Your task to perform on an android device: Go to network settings Image 0: 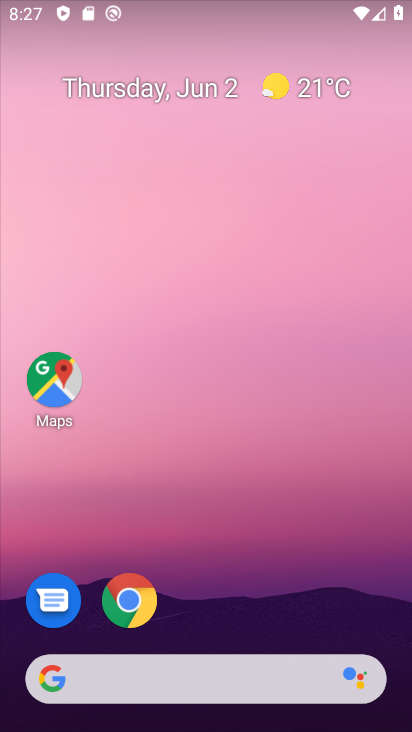
Step 0: drag from (234, 625) to (253, 355)
Your task to perform on an android device: Go to network settings Image 1: 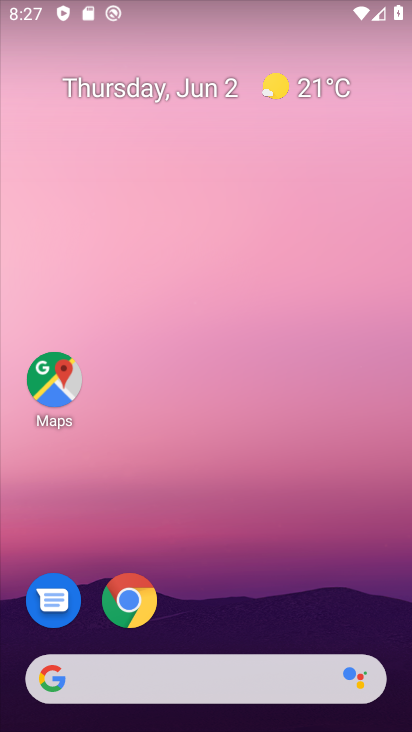
Step 1: drag from (238, 504) to (222, 96)
Your task to perform on an android device: Go to network settings Image 2: 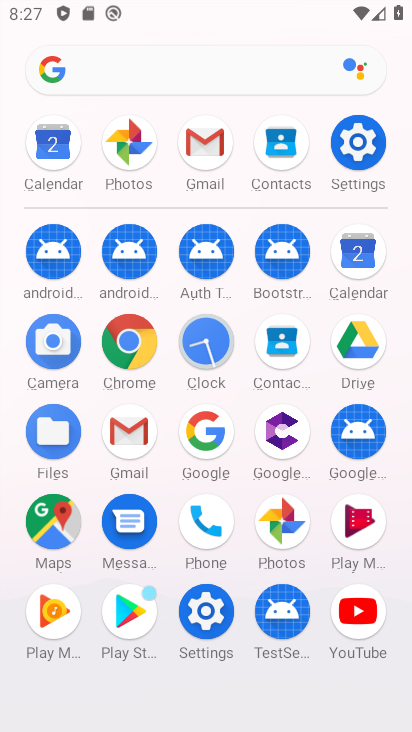
Step 2: click (334, 146)
Your task to perform on an android device: Go to network settings Image 3: 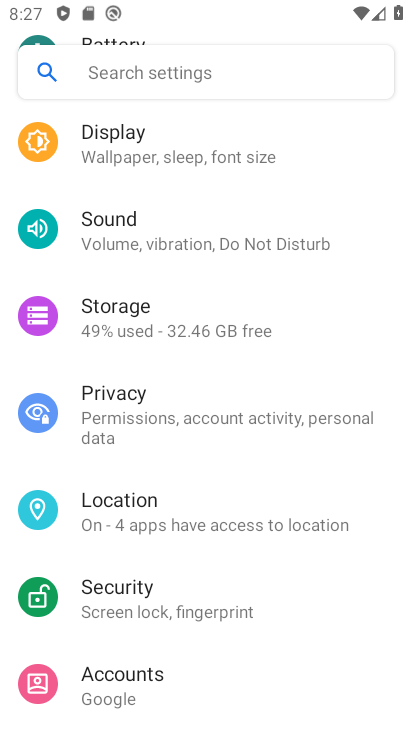
Step 3: drag from (270, 85) to (300, 431)
Your task to perform on an android device: Go to network settings Image 4: 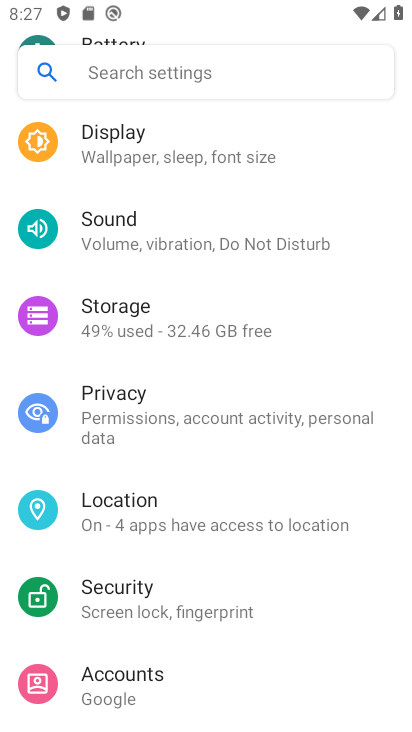
Step 4: drag from (250, 339) to (250, 437)
Your task to perform on an android device: Go to network settings Image 5: 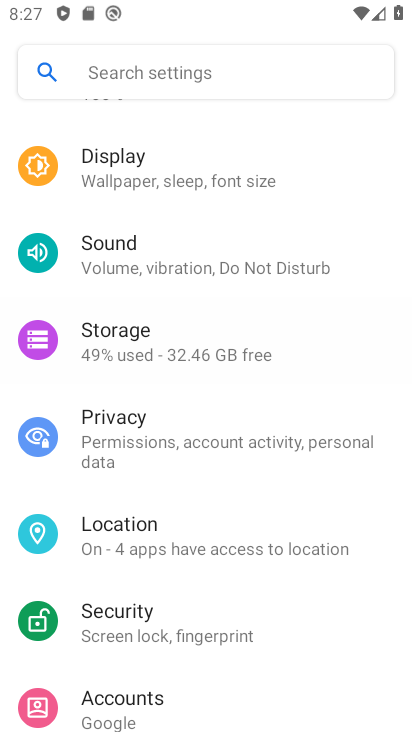
Step 5: drag from (235, 217) to (235, 453)
Your task to perform on an android device: Go to network settings Image 6: 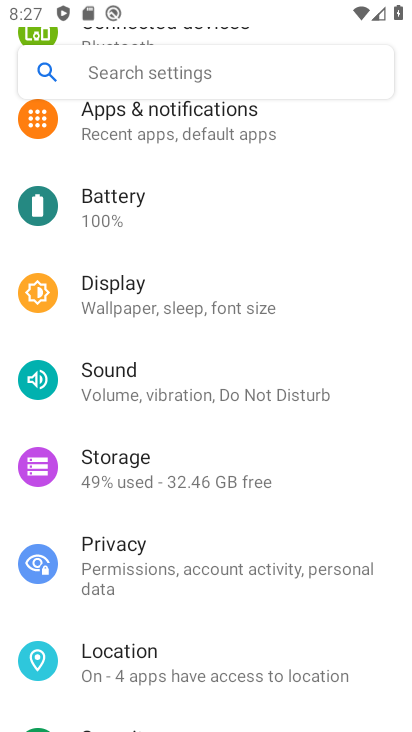
Step 6: drag from (231, 293) to (231, 536)
Your task to perform on an android device: Go to network settings Image 7: 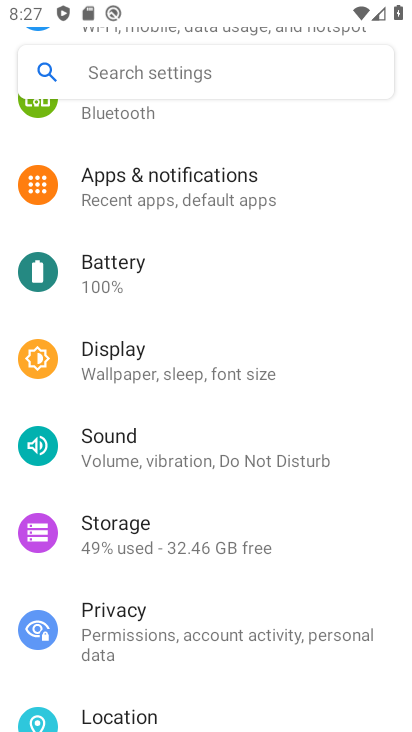
Step 7: drag from (238, 195) to (238, 548)
Your task to perform on an android device: Go to network settings Image 8: 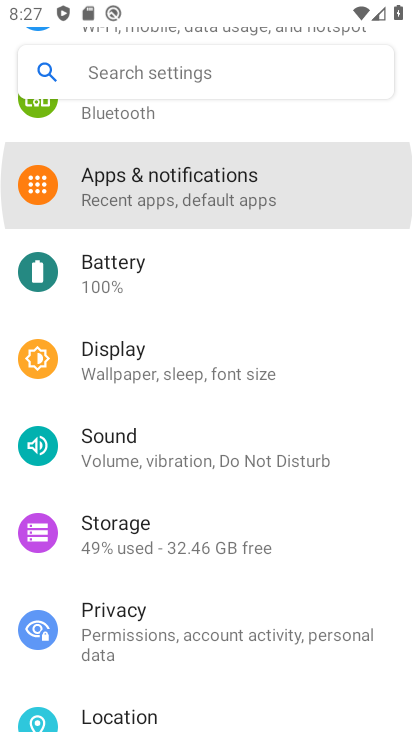
Step 8: drag from (207, 302) to (207, 611)
Your task to perform on an android device: Go to network settings Image 9: 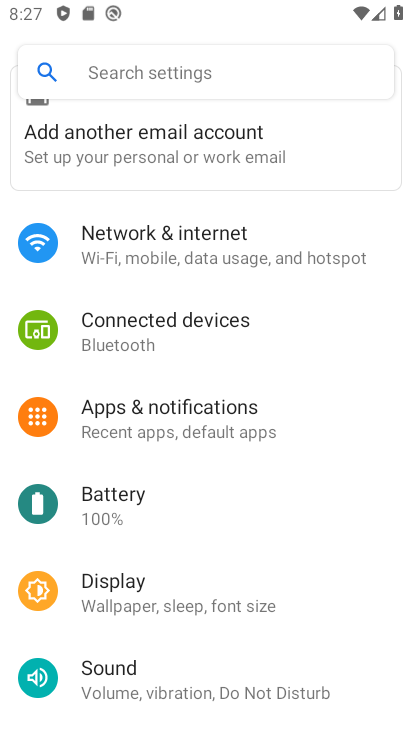
Step 9: click (198, 252)
Your task to perform on an android device: Go to network settings Image 10: 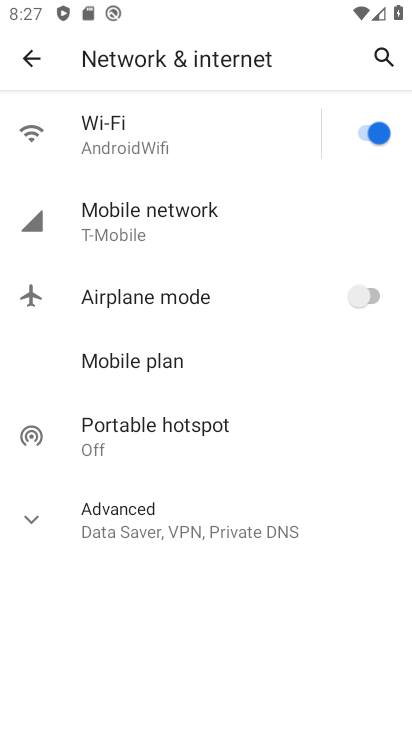
Step 10: click (244, 220)
Your task to perform on an android device: Go to network settings Image 11: 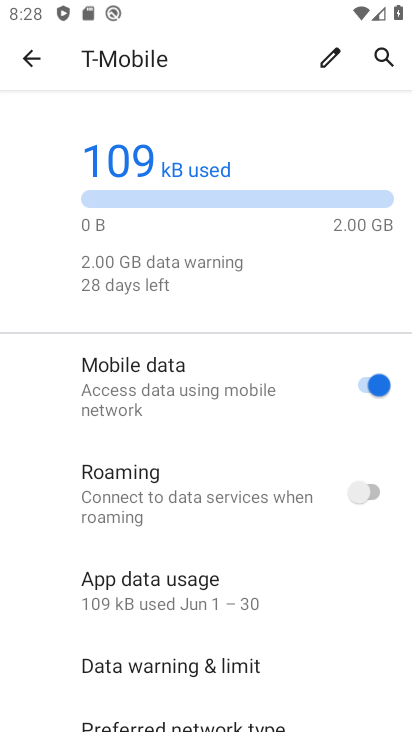
Step 11: task complete